Your task to perform on an android device: turn on airplane mode Image 0: 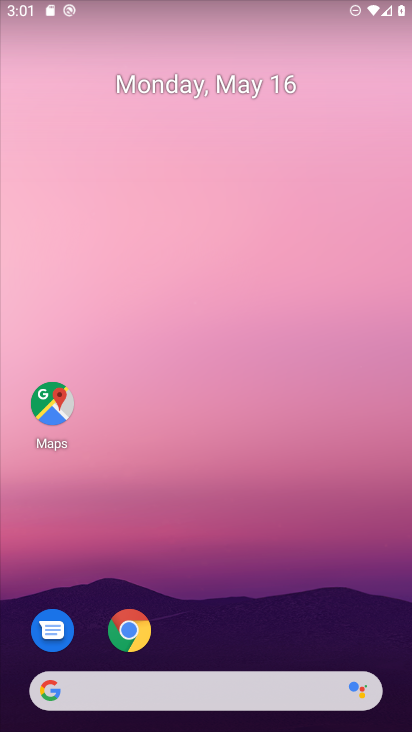
Step 0: drag from (264, 543) to (245, 26)
Your task to perform on an android device: turn on airplane mode Image 1: 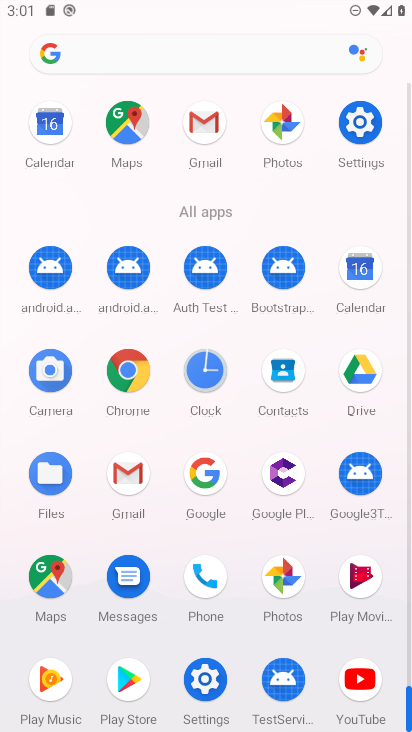
Step 1: drag from (20, 497) to (18, 218)
Your task to perform on an android device: turn on airplane mode Image 2: 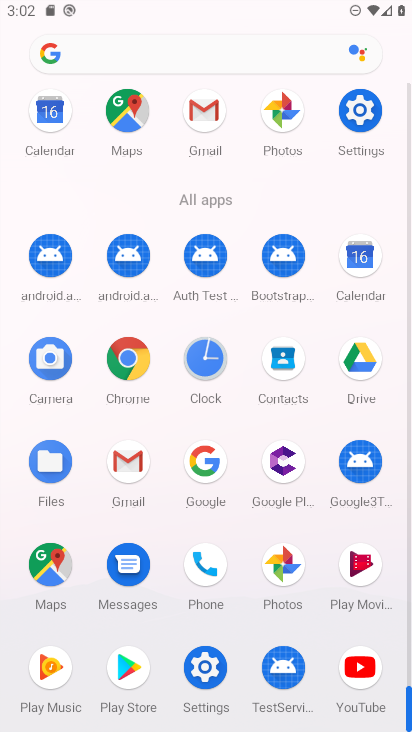
Step 2: click (204, 667)
Your task to perform on an android device: turn on airplane mode Image 3: 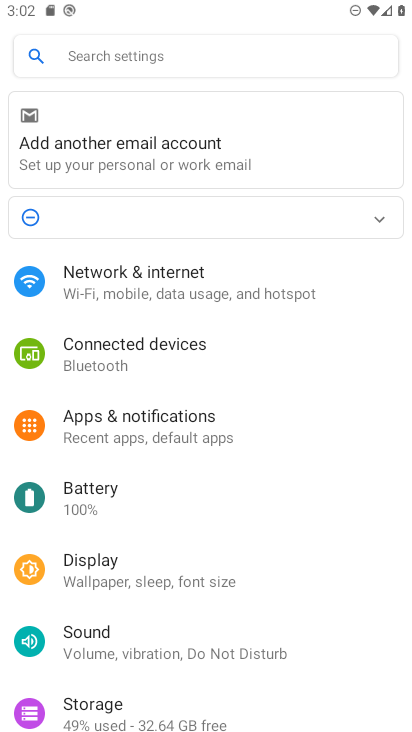
Step 3: click (246, 287)
Your task to perform on an android device: turn on airplane mode Image 4: 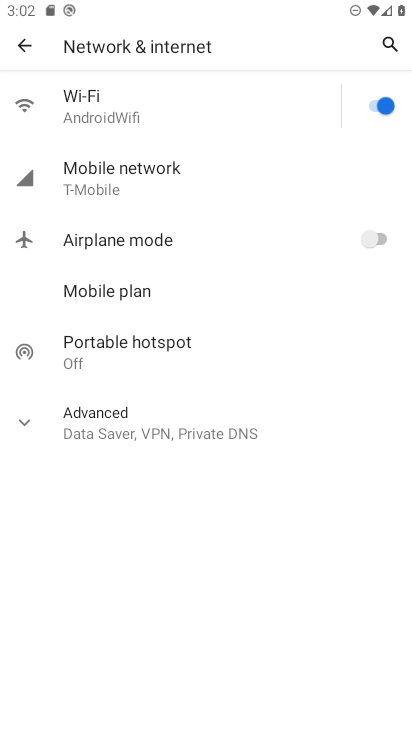
Step 4: click (380, 237)
Your task to perform on an android device: turn on airplane mode Image 5: 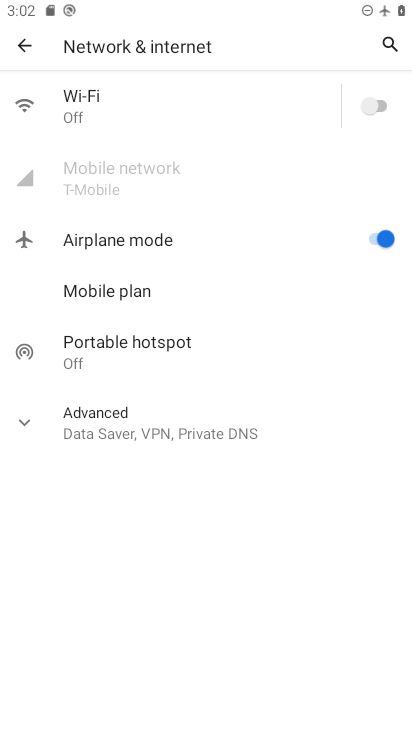
Step 5: click (26, 411)
Your task to perform on an android device: turn on airplane mode Image 6: 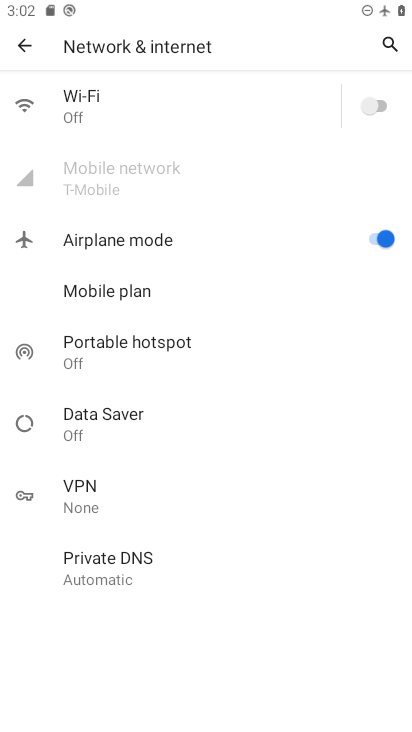
Step 6: task complete